Your task to perform on an android device: Open the phone app and click the voicemail tab. Image 0: 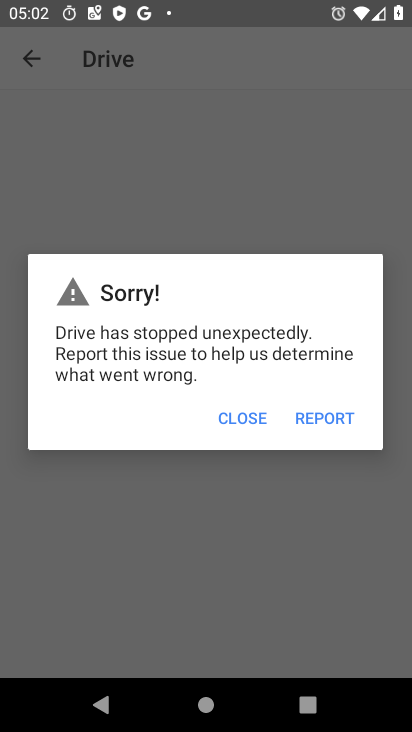
Step 0: press home button
Your task to perform on an android device: Open the phone app and click the voicemail tab. Image 1: 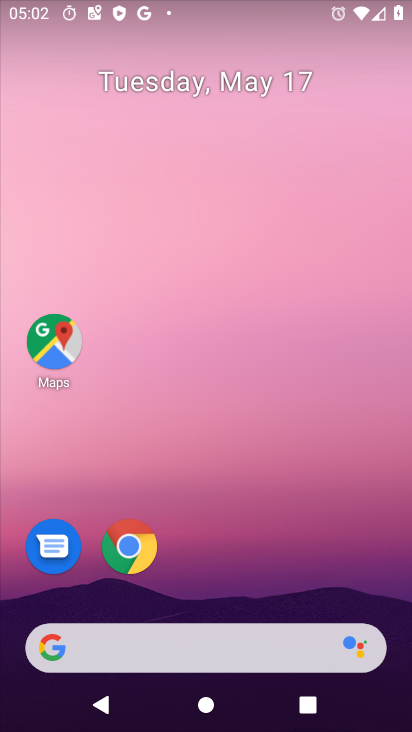
Step 1: drag from (396, 606) to (365, 358)
Your task to perform on an android device: Open the phone app and click the voicemail tab. Image 2: 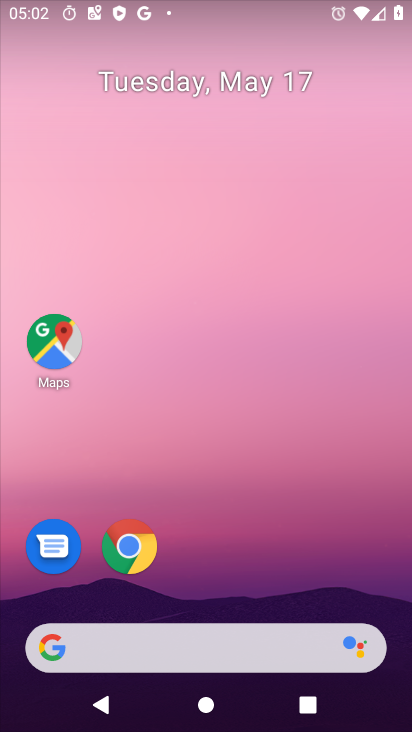
Step 2: drag from (402, 656) to (377, 313)
Your task to perform on an android device: Open the phone app and click the voicemail tab. Image 3: 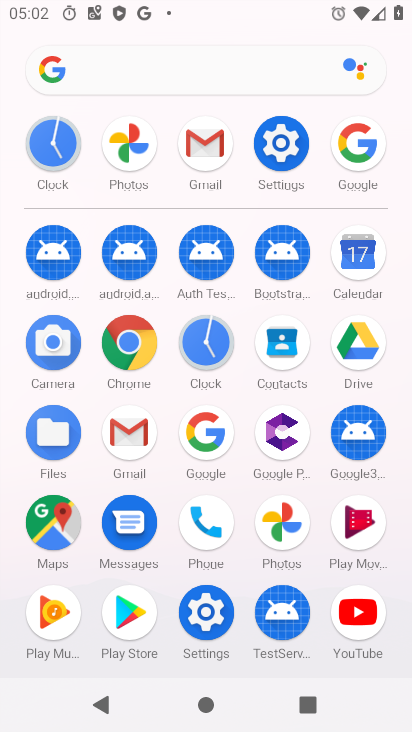
Step 3: click (197, 515)
Your task to perform on an android device: Open the phone app and click the voicemail tab. Image 4: 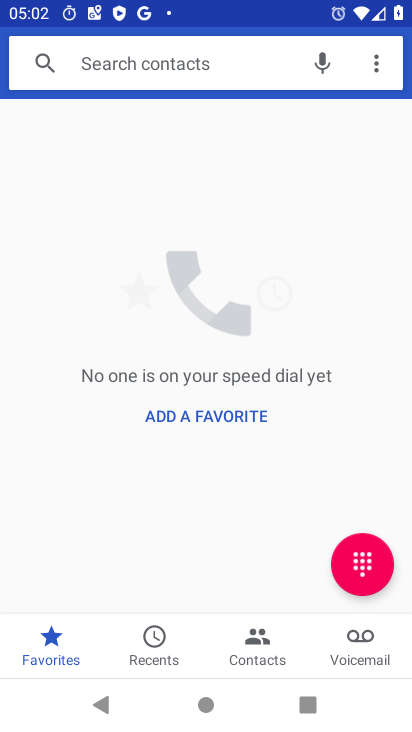
Step 4: click (343, 661)
Your task to perform on an android device: Open the phone app and click the voicemail tab. Image 5: 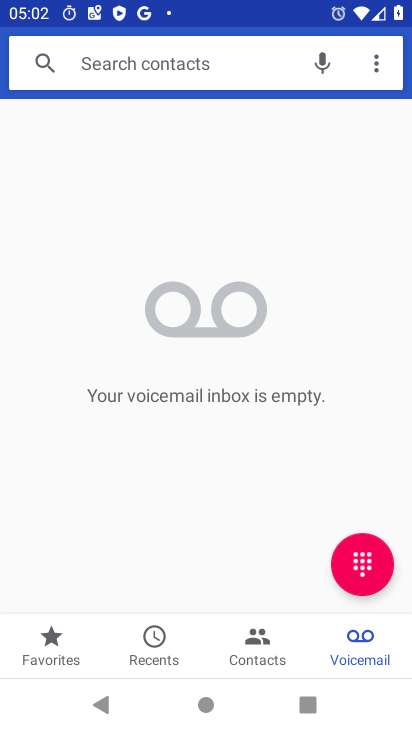
Step 5: task complete